Your task to perform on an android device: turn off airplane mode Image 0: 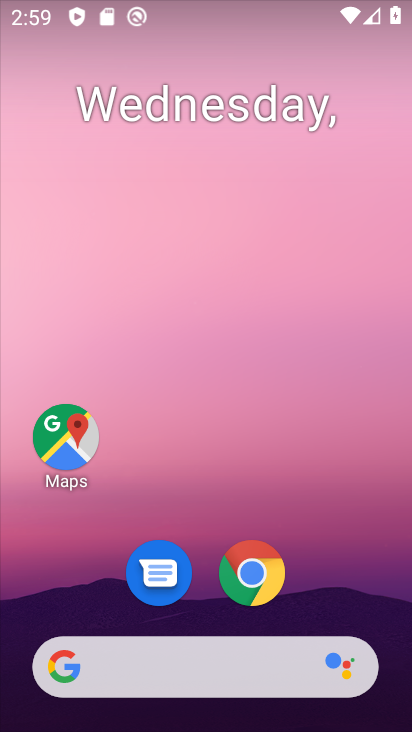
Step 0: drag from (216, 649) to (158, 206)
Your task to perform on an android device: turn off airplane mode Image 1: 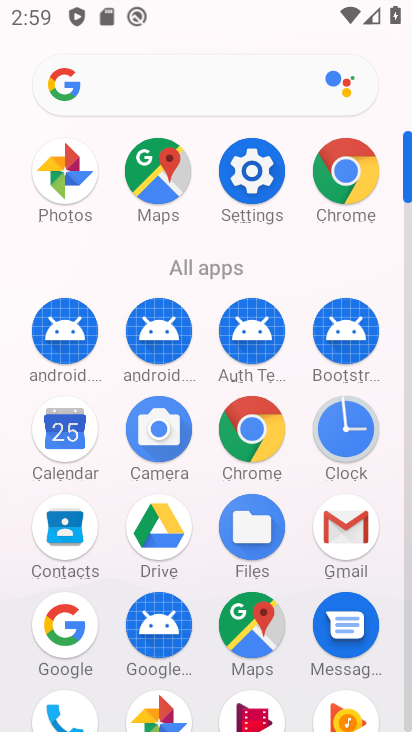
Step 1: click (258, 173)
Your task to perform on an android device: turn off airplane mode Image 2: 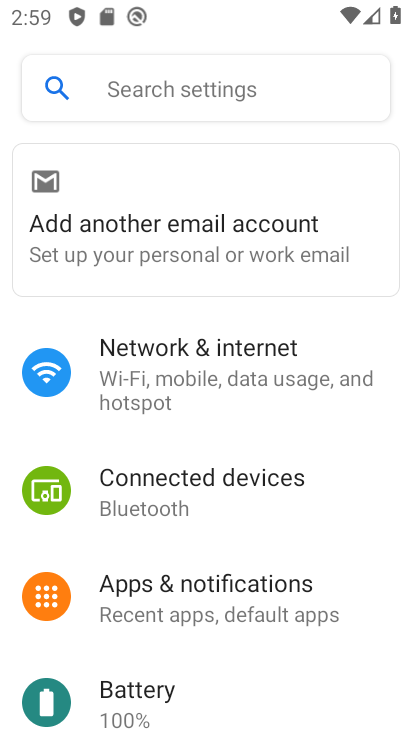
Step 2: click (138, 382)
Your task to perform on an android device: turn off airplane mode Image 3: 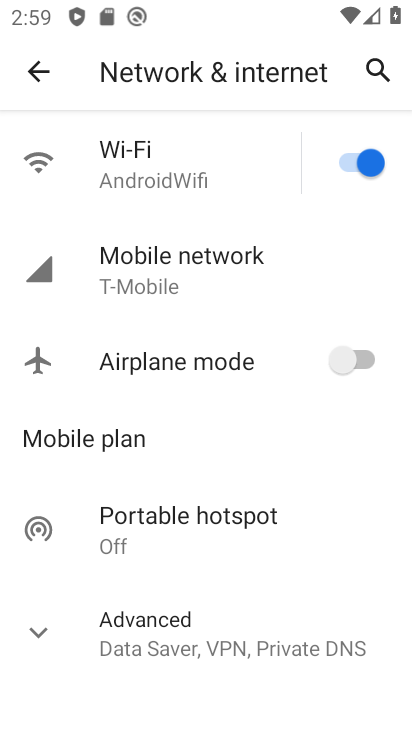
Step 3: task complete